Your task to perform on an android device: Open Google Image 0: 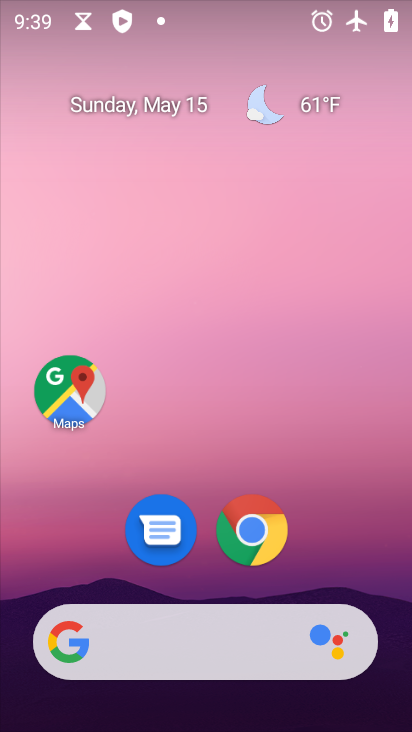
Step 0: drag from (187, 731) to (202, 158)
Your task to perform on an android device: Open Google Image 1: 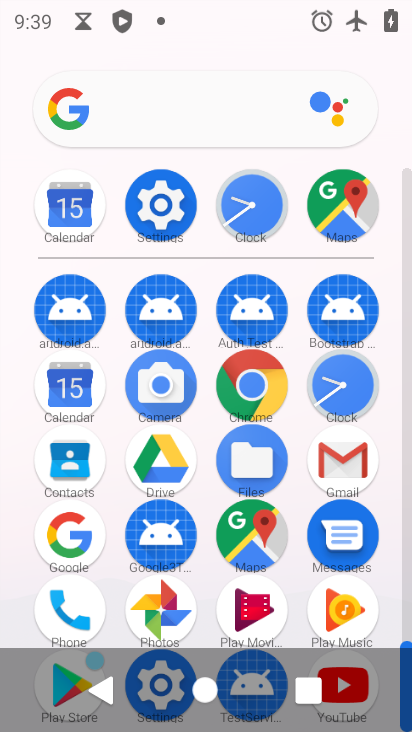
Step 1: click (255, 532)
Your task to perform on an android device: Open Google Image 2: 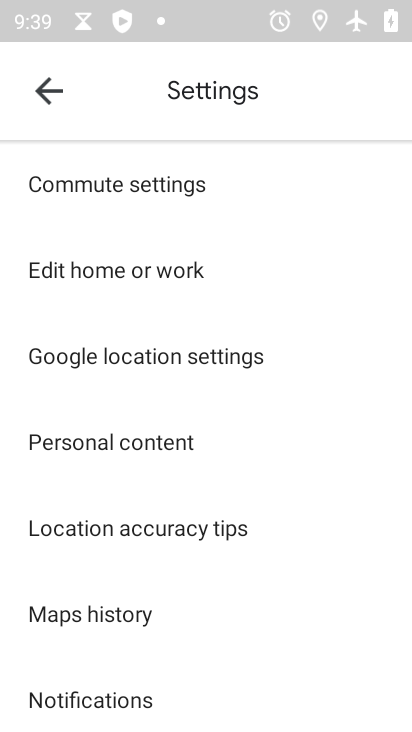
Step 2: click (50, 83)
Your task to perform on an android device: Open Google Image 3: 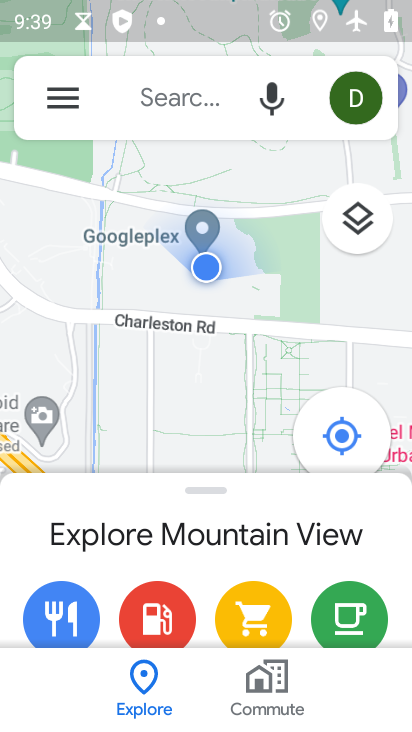
Step 3: task complete